Your task to perform on an android device: What is the recent news? Image 0: 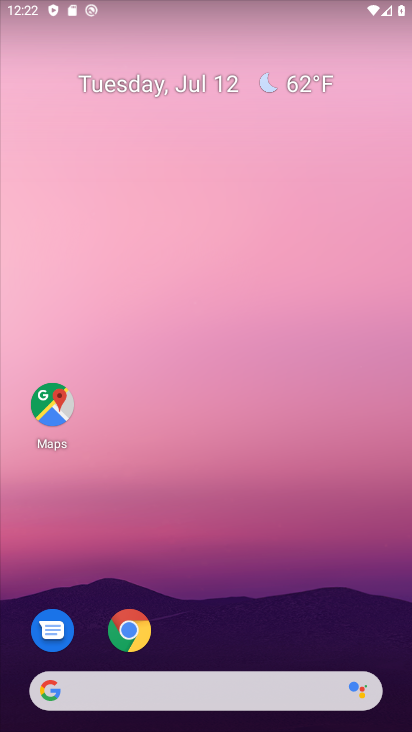
Step 0: drag from (6, 284) to (358, 279)
Your task to perform on an android device: What is the recent news? Image 1: 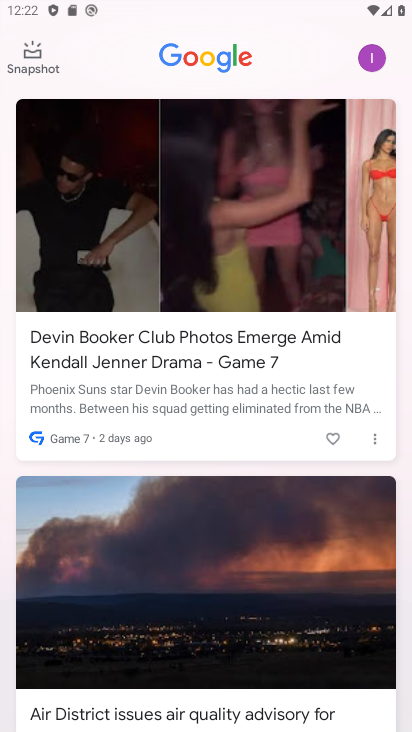
Step 1: task complete